Your task to perform on an android device: choose inbox layout in the gmail app Image 0: 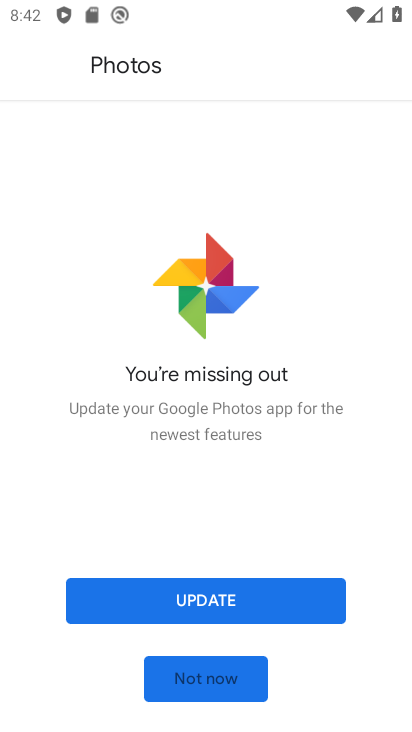
Step 0: press home button
Your task to perform on an android device: choose inbox layout in the gmail app Image 1: 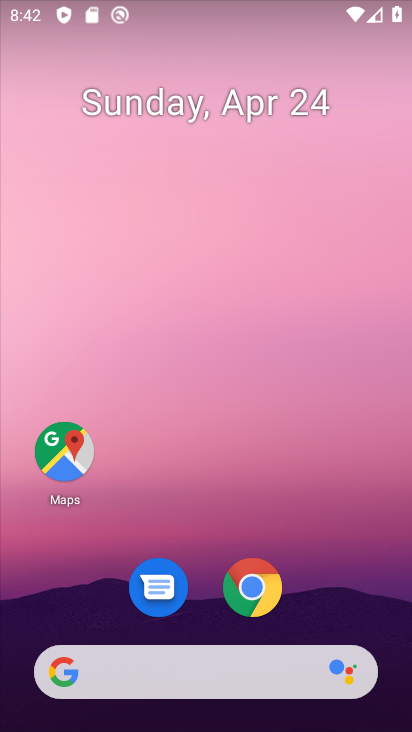
Step 1: drag from (197, 597) to (257, 107)
Your task to perform on an android device: choose inbox layout in the gmail app Image 2: 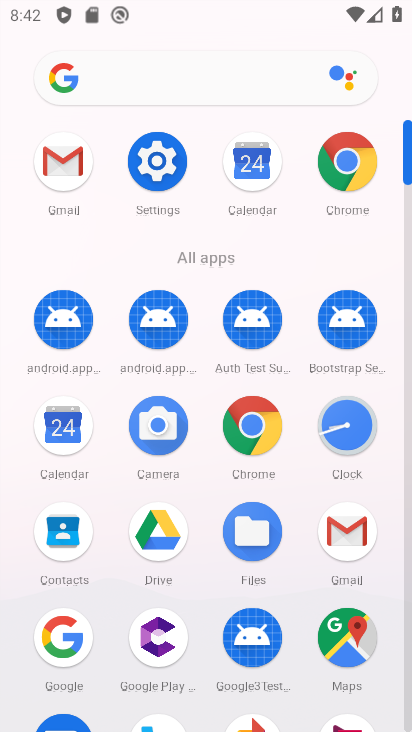
Step 2: click (56, 150)
Your task to perform on an android device: choose inbox layout in the gmail app Image 3: 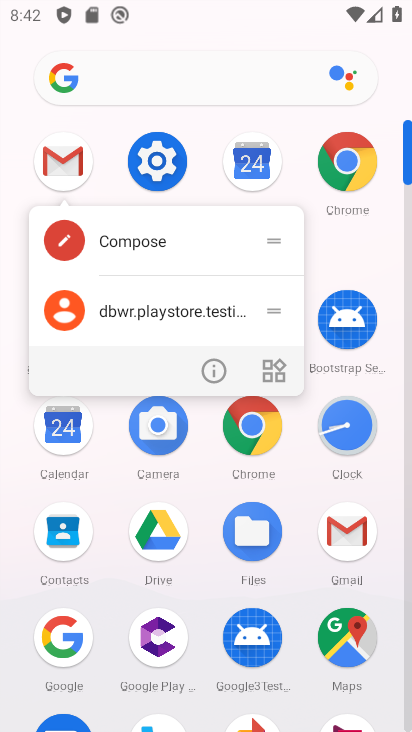
Step 3: click (55, 162)
Your task to perform on an android device: choose inbox layout in the gmail app Image 4: 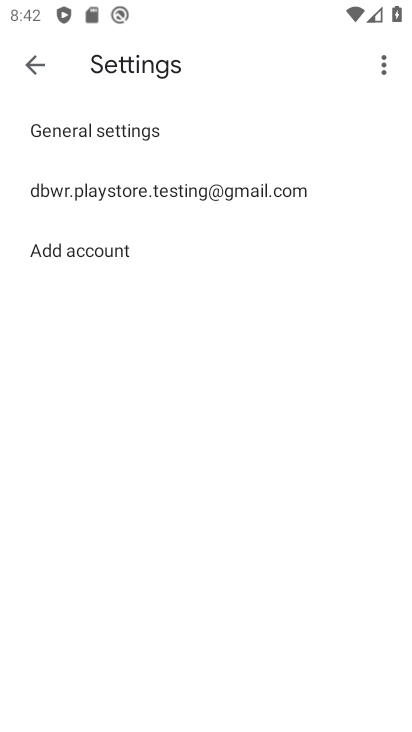
Step 4: click (108, 190)
Your task to perform on an android device: choose inbox layout in the gmail app Image 5: 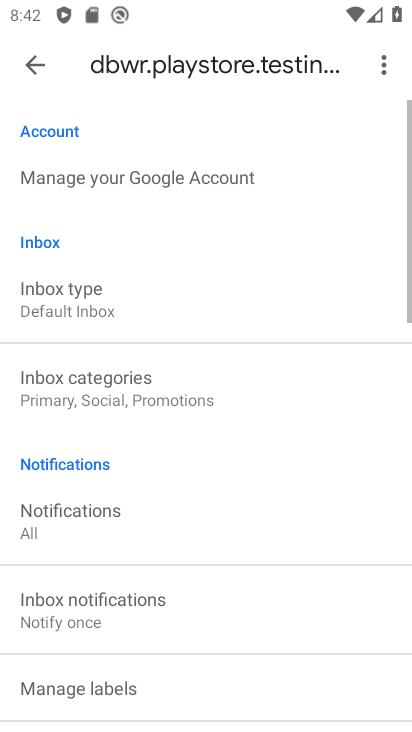
Step 5: click (90, 294)
Your task to perform on an android device: choose inbox layout in the gmail app Image 6: 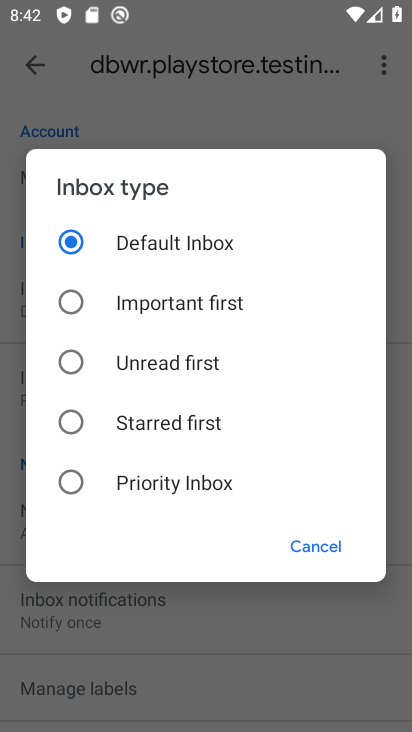
Step 6: click (66, 485)
Your task to perform on an android device: choose inbox layout in the gmail app Image 7: 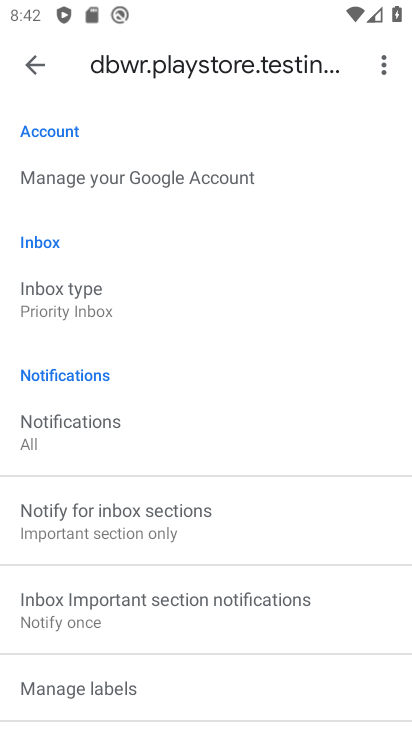
Step 7: task complete